Your task to perform on an android device: set the stopwatch Image 0: 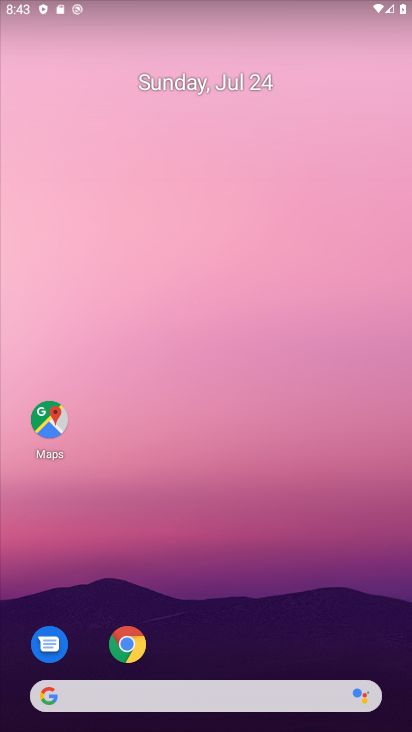
Step 0: drag from (300, 682) to (373, 365)
Your task to perform on an android device: set the stopwatch Image 1: 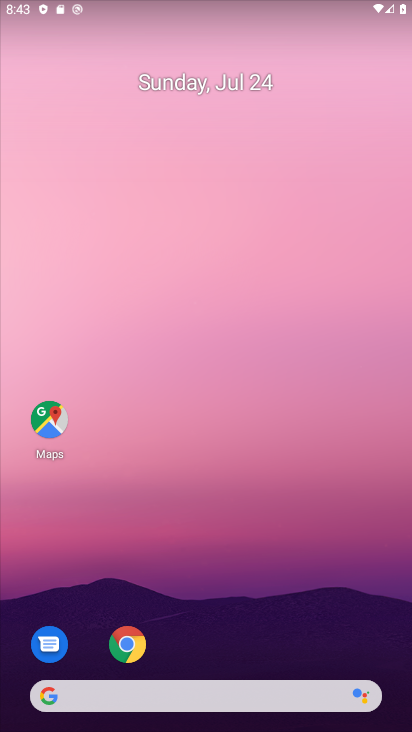
Step 1: drag from (317, 593) to (317, 145)
Your task to perform on an android device: set the stopwatch Image 2: 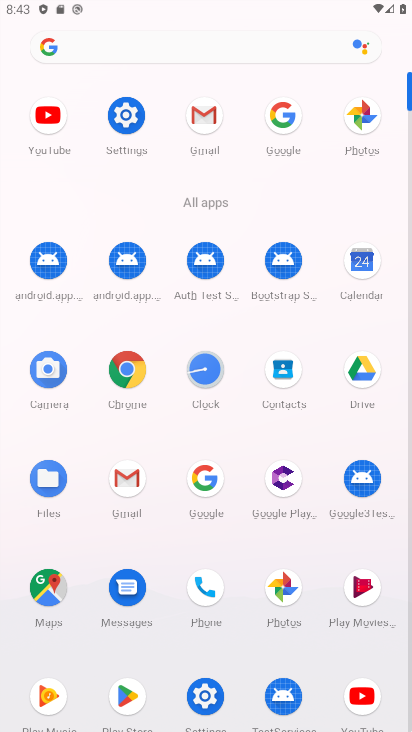
Step 2: click (208, 370)
Your task to perform on an android device: set the stopwatch Image 3: 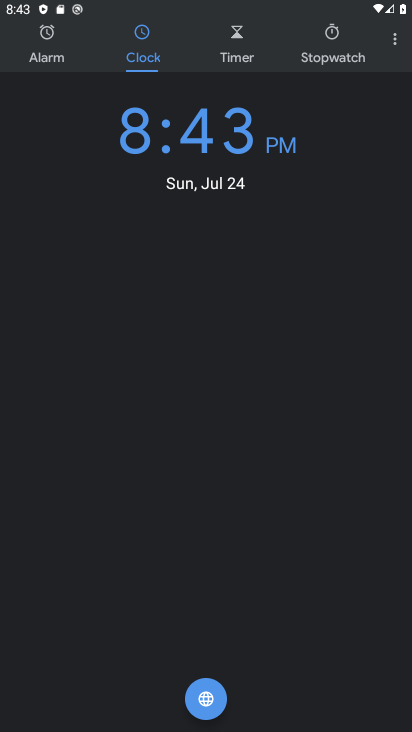
Step 3: click (324, 56)
Your task to perform on an android device: set the stopwatch Image 4: 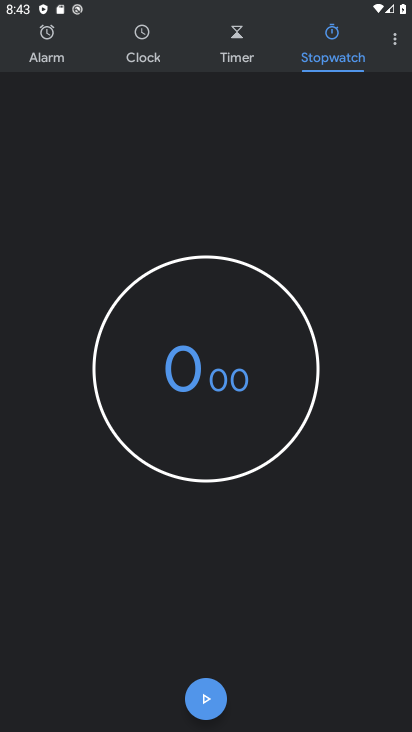
Step 4: click (205, 706)
Your task to perform on an android device: set the stopwatch Image 5: 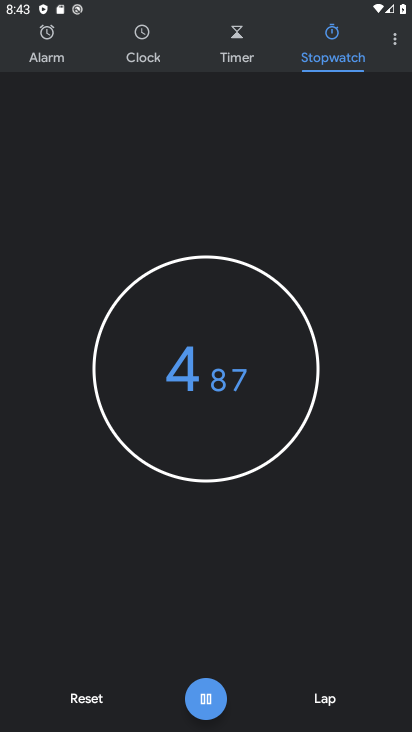
Step 5: click (205, 706)
Your task to perform on an android device: set the stopwatch Image 6: 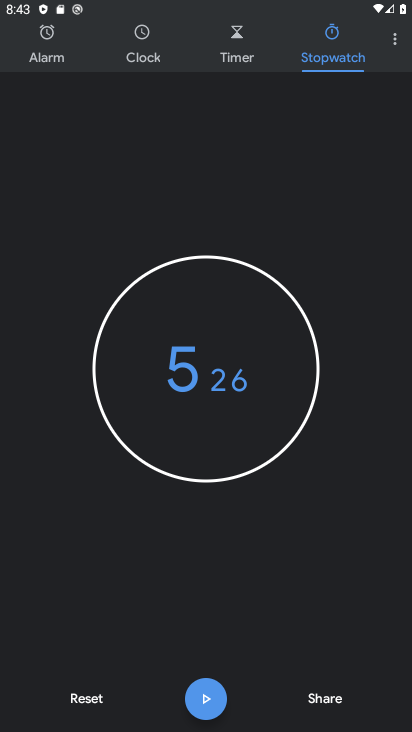
Step 6: task complete